Your task to perform on an android device: toggle pop-ups in chrome Image 0: 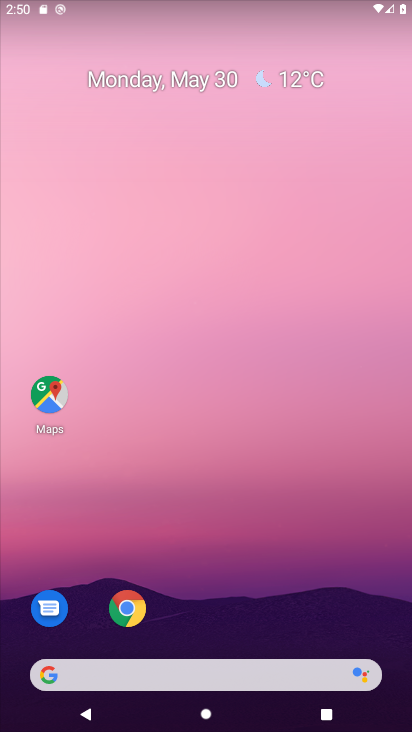
Step 0: click (134, 616)
Your task to perform on an android device: toggle pop-ups in chrome Image 1: 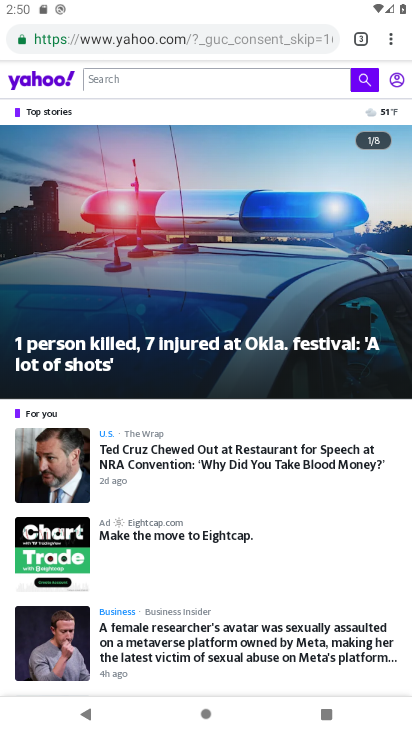
Step 1: click (388, 37)
Your task to perform on an android device: toggle pop-ups in chrome Image 2: 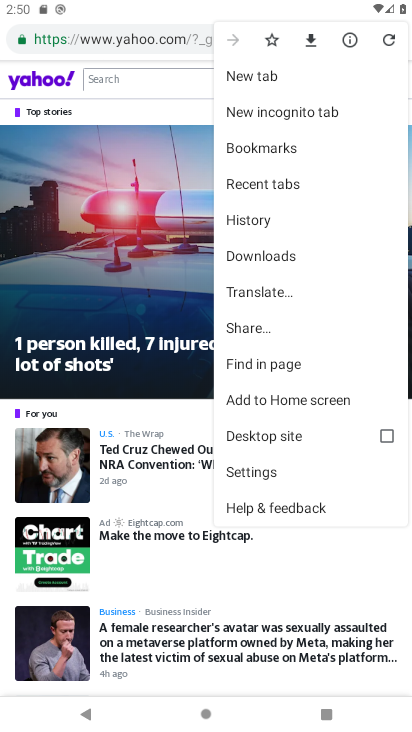
Step 2: click (287, 468)
Your task to perform on an android device: toggle pop-ups in chrome Image 3: 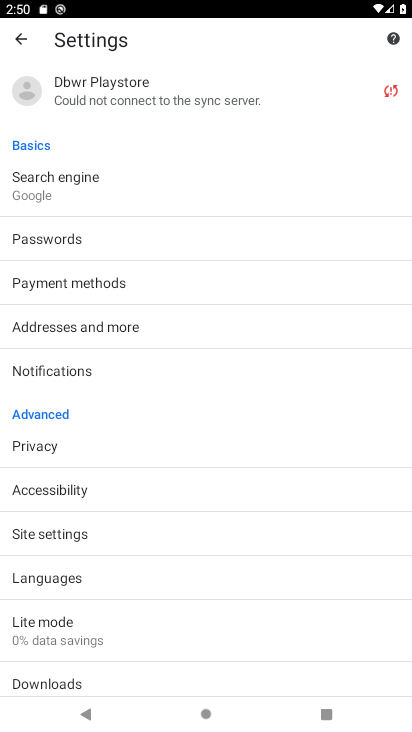
Step 3: drag from (169, 600) to (183, 227)
Your task to perform on an android device: toggle pop-ups in chrome Image 4: 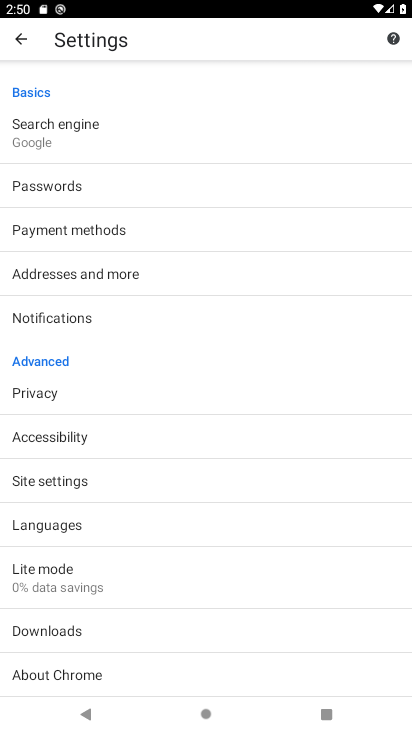
Step 4: drag from (159, 643) to (156, 76)
Your task to perform on an android device: toggle pop-ups in chrome Image 5: 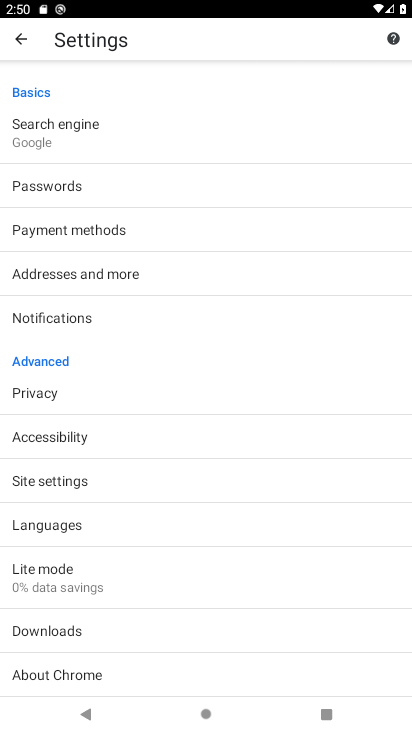
Step 5: drag from (140, 590) to (167, 227)
Your task to perform on an android device: toggle pop-ups in chrome Image 6: 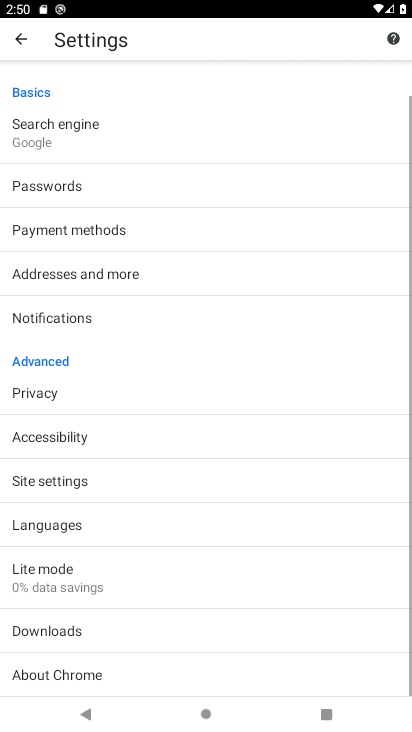
Step 6: drag from (154, 629) to (175, 115)
Your task to perform on an android device: toggle pop-ups in chrome Image 7: 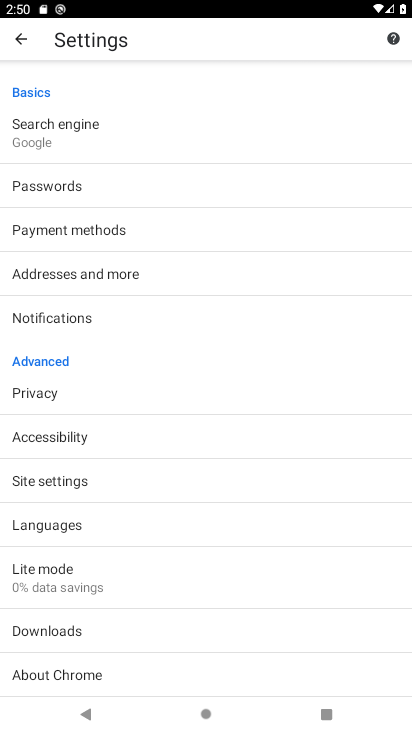
Step 7: click (121, 478)
Your task to perform on an android device: toggle pop-ups in chrome Image 8: 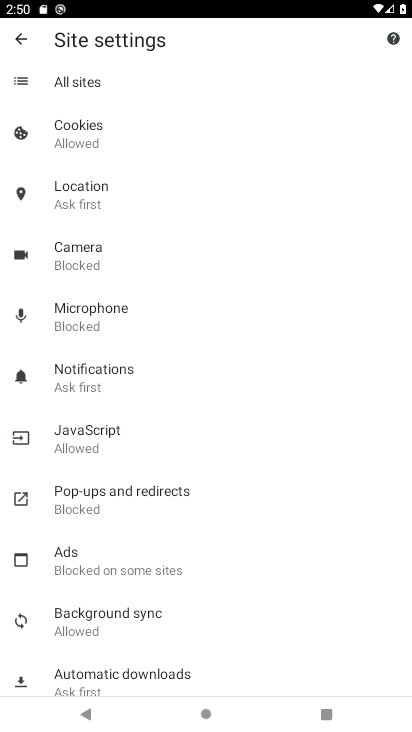
Step 8: click (185, 502)
Your task to perform on an android device: toggle pop-ups in chrome Image 9: 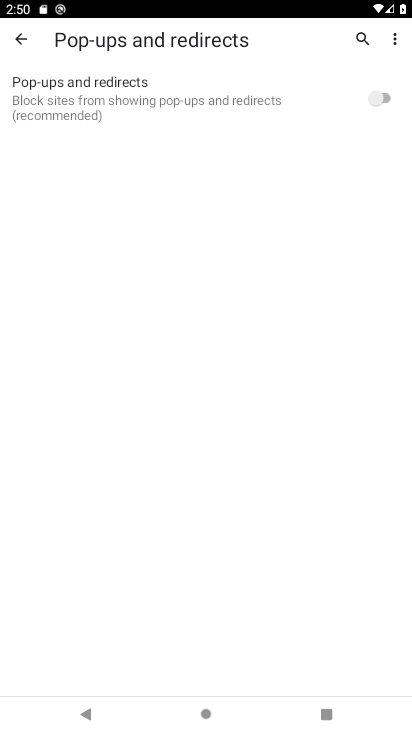
Step 9: click (377, 86)
Your task to perform on an android device: toggle pop-ups in chrome Image 10: 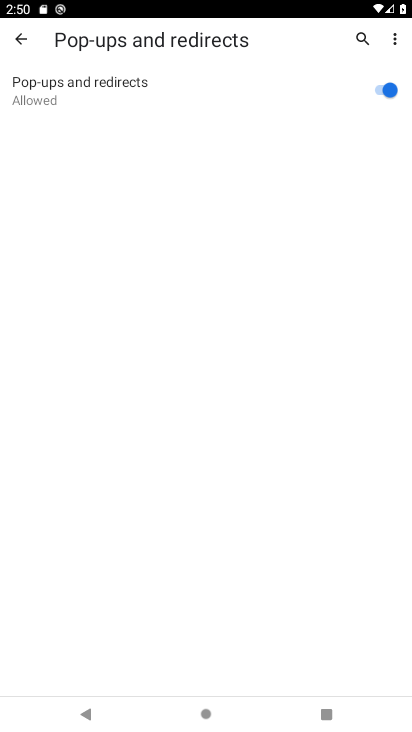
Step 10: task complete